Your task to perform on an android device: see creations saved in the google photos Image 0: 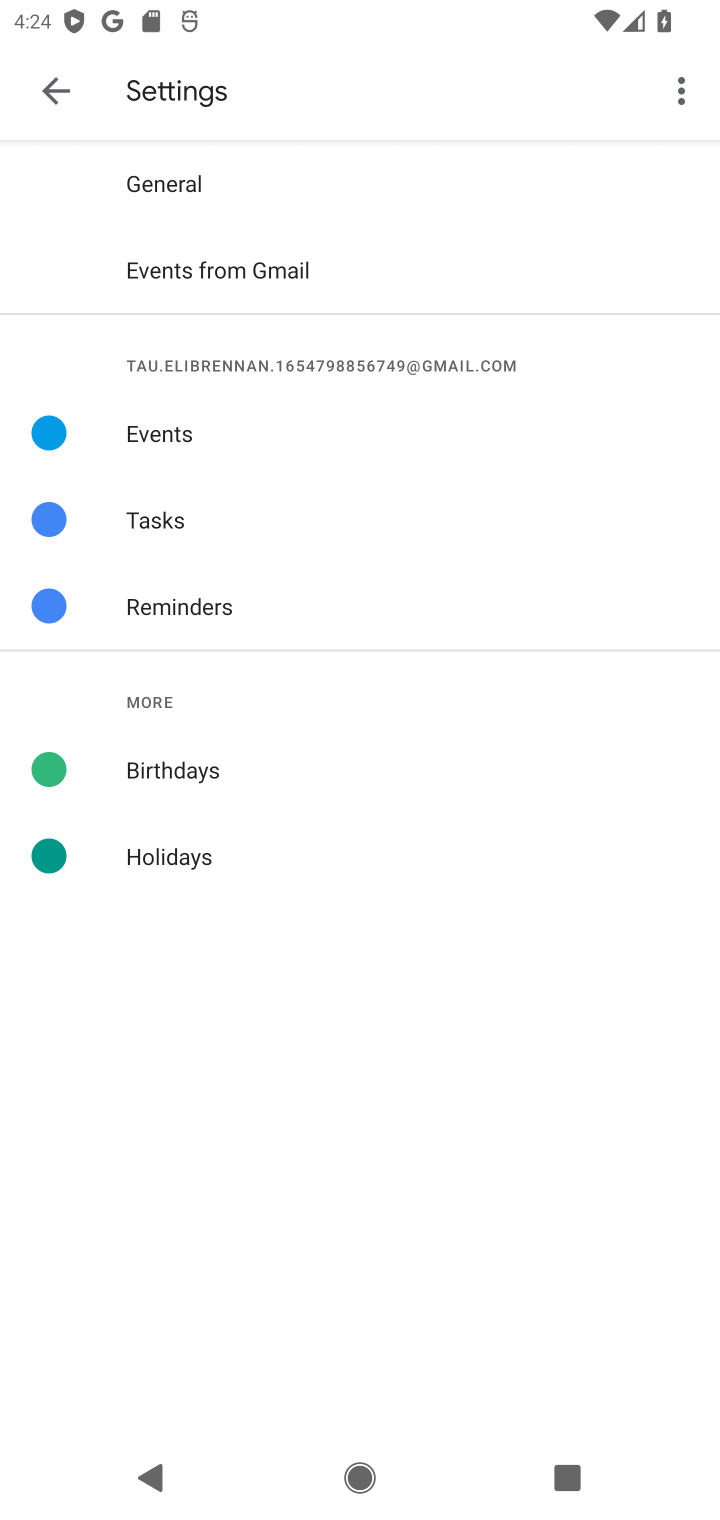
Step 0: press home button
Your task to perform on an android device: see creations saved in the google photos Image 1: 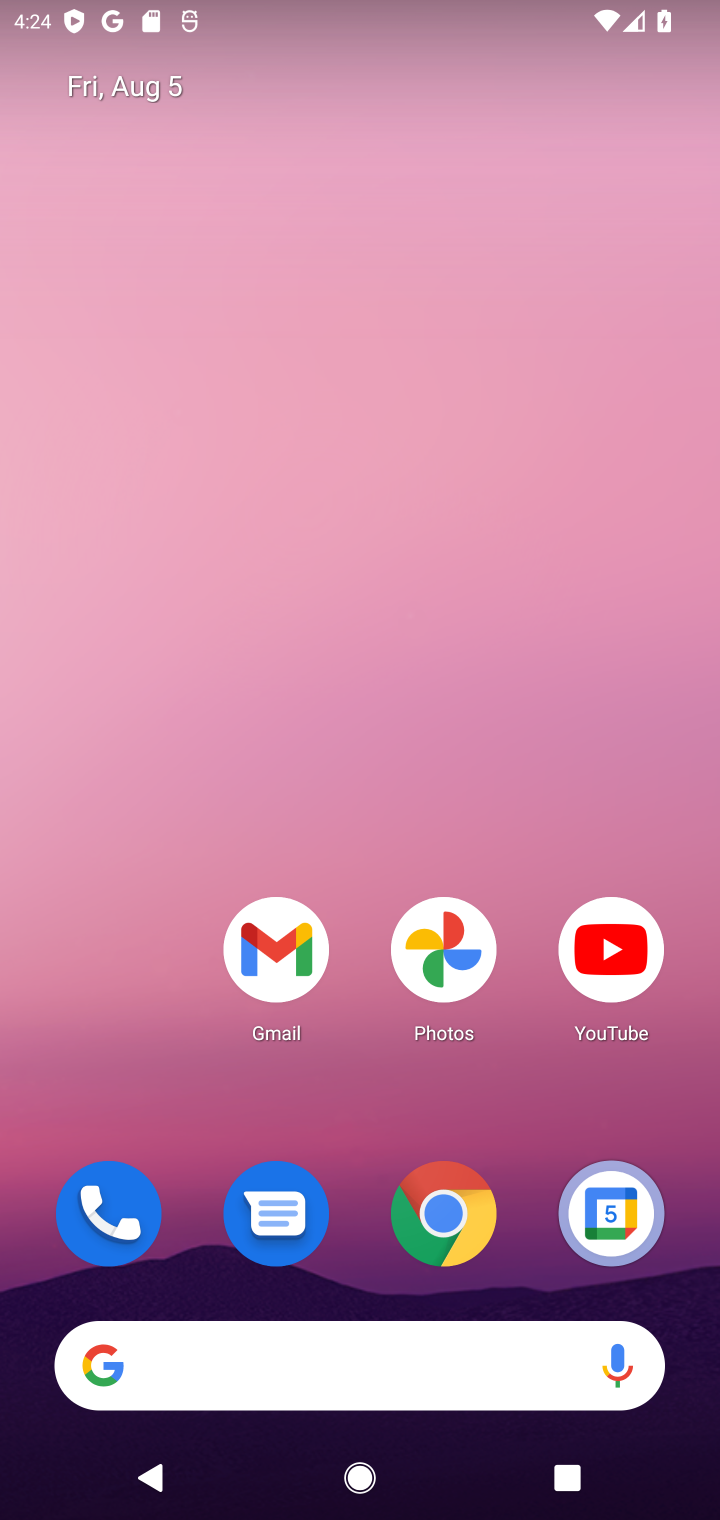
Step 1: click (454, 976)
Your task to perform on an android device: see creations saved in the google photos Image 2: 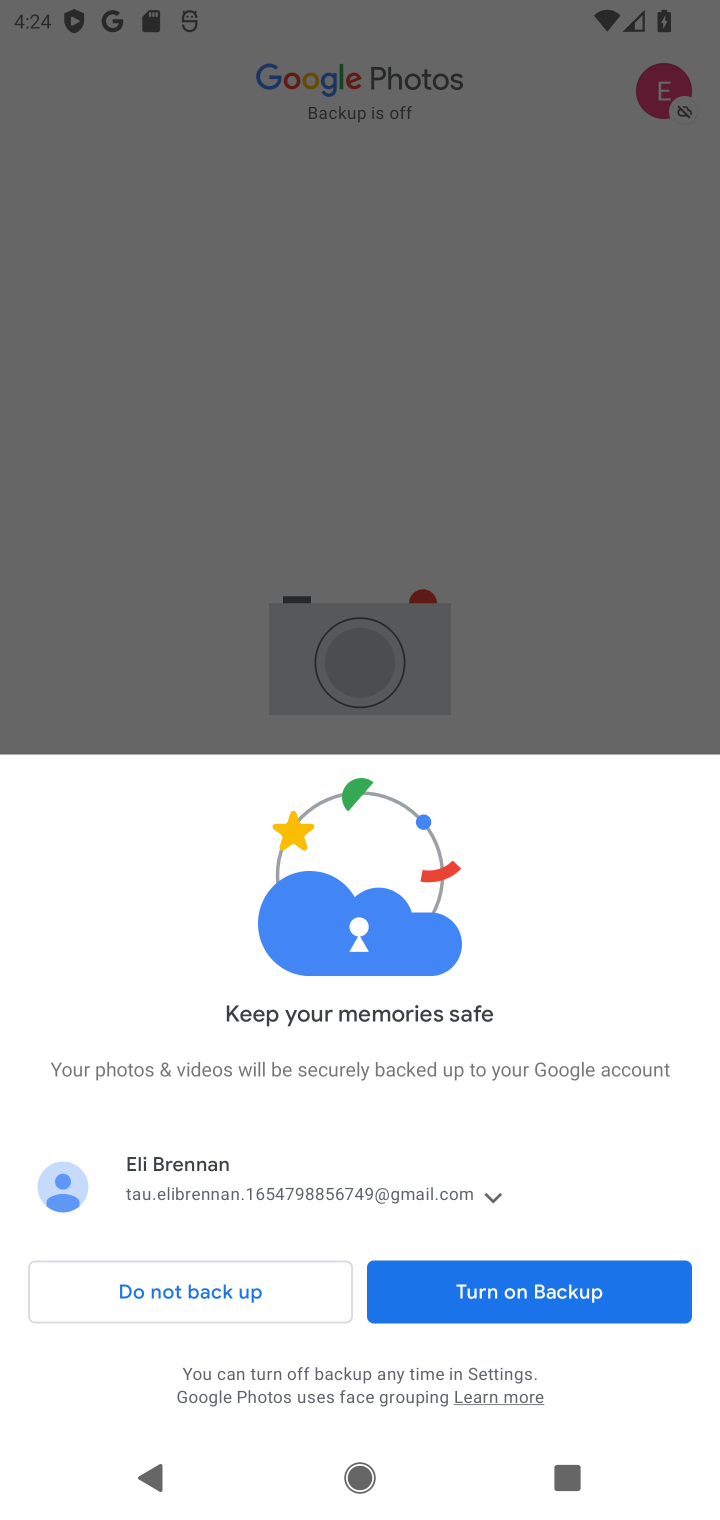
Step 2: click (490, 1279)
Your task to perform on an android device: see creations saved in the google photos Image 3: 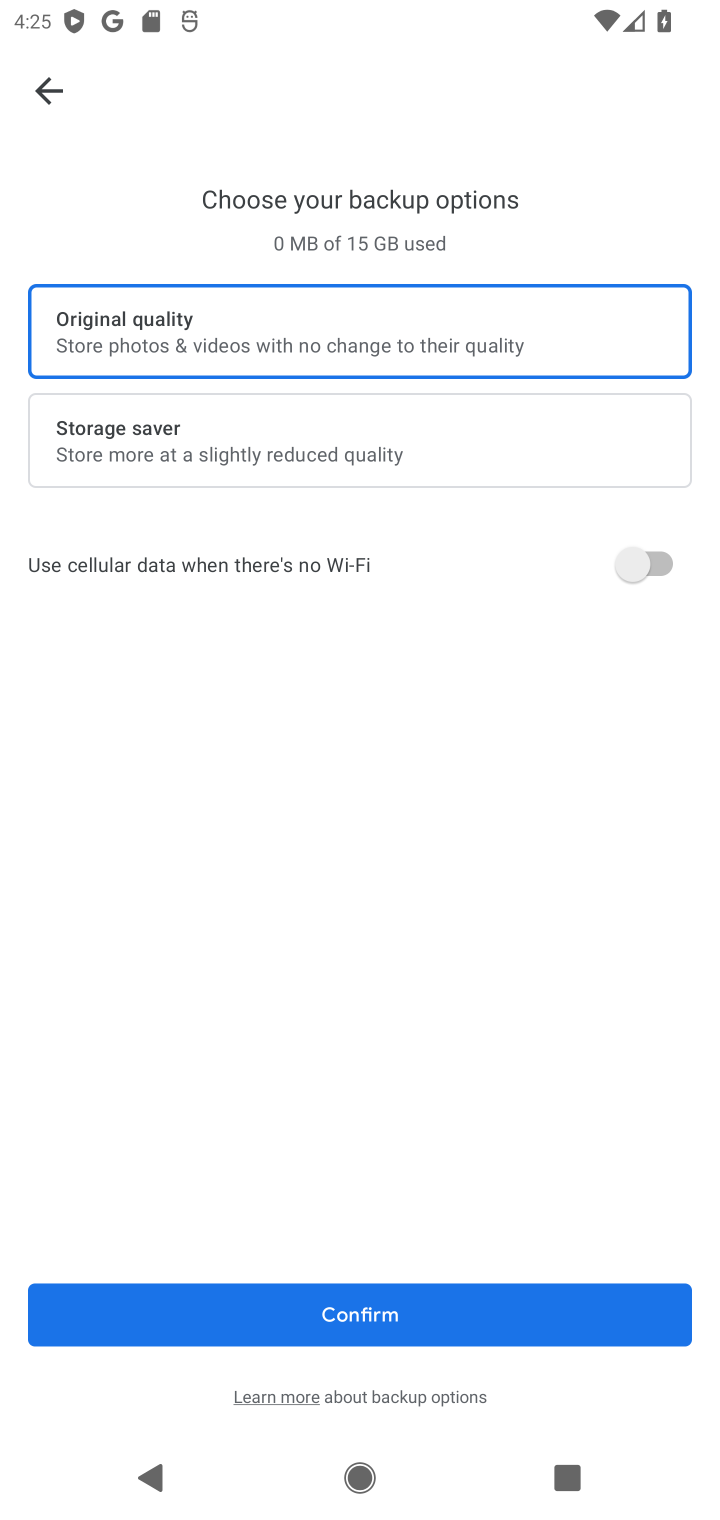
Step 3: click (468, 1316)
Your task to perform on an android device: see creations saved in the google photos Image 4: 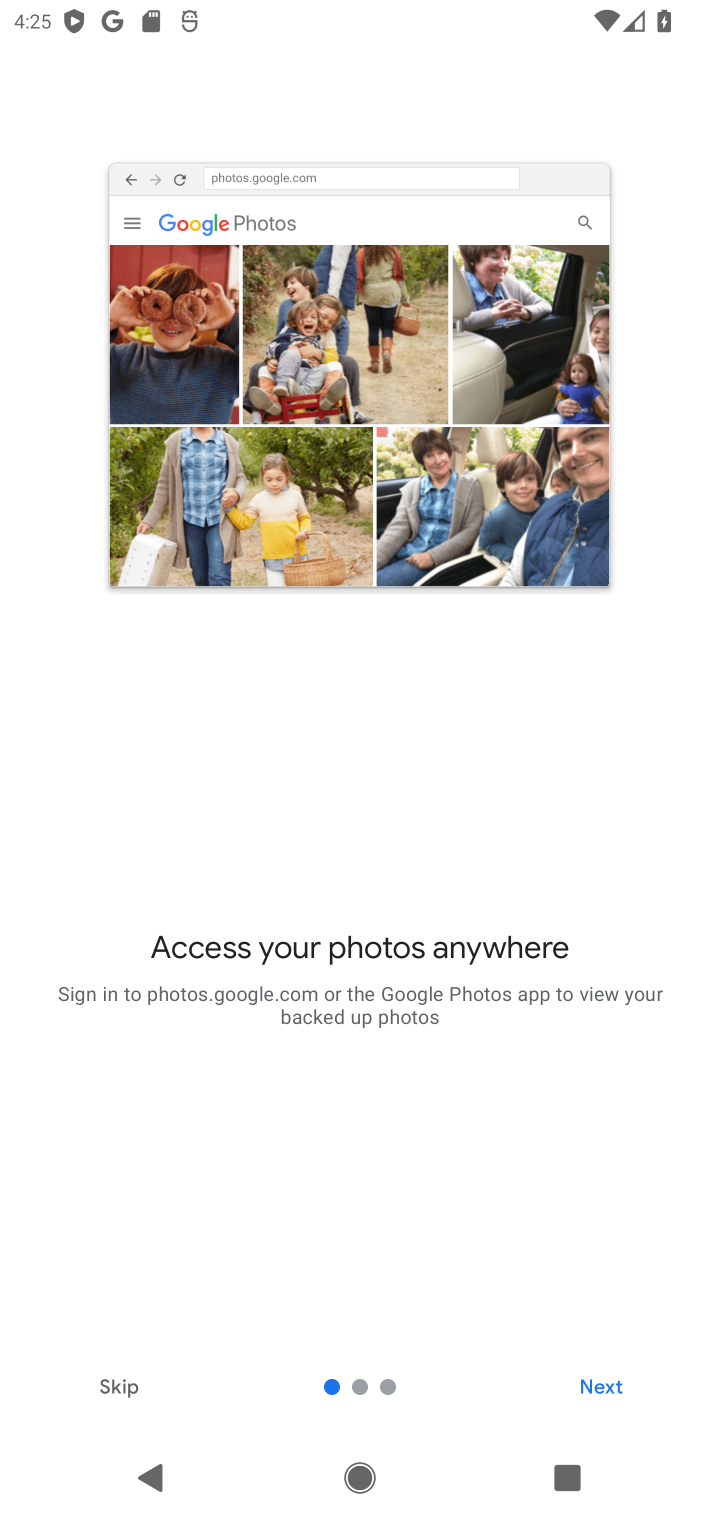
Step 4: click (107, 1377)
Your task to perform on an android device: see creations saved in the google photos Image 5: 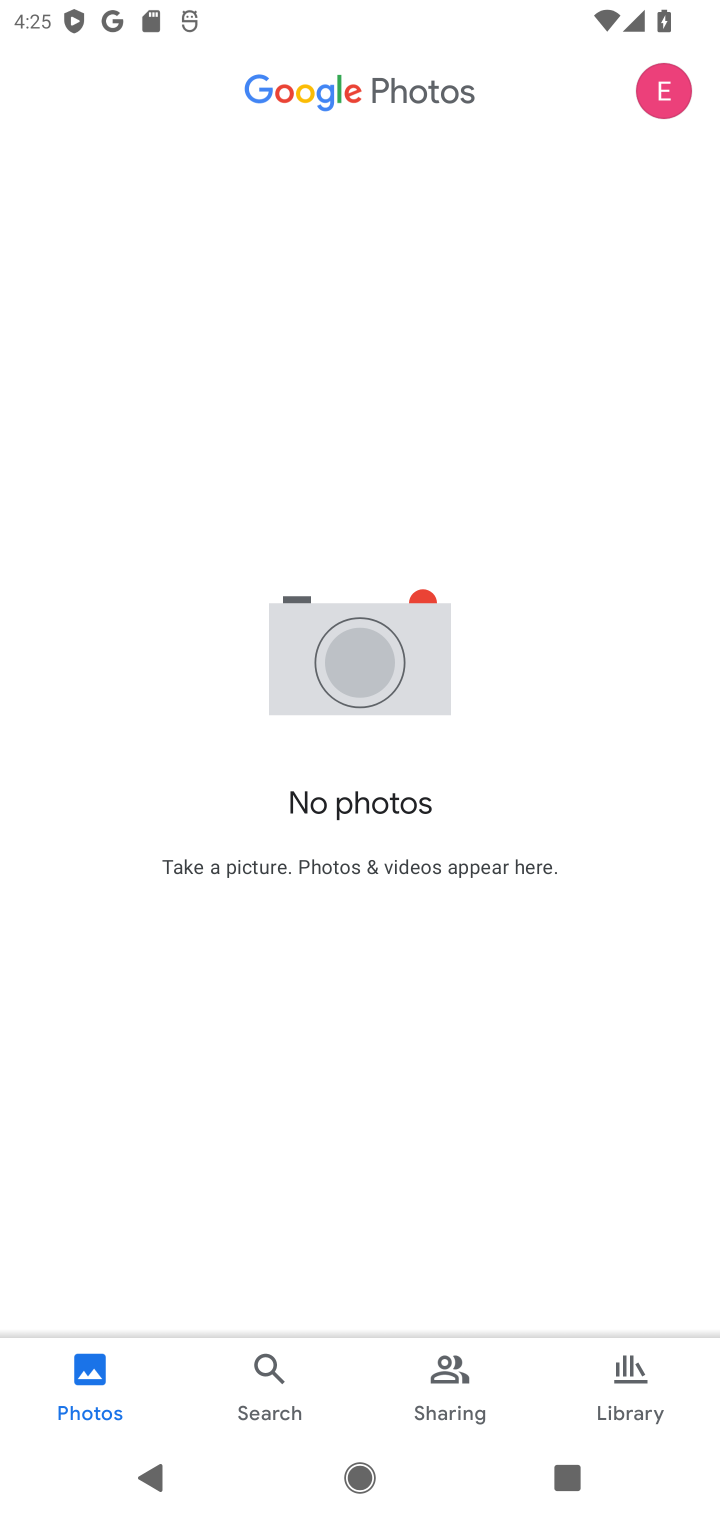
Step 5: click (287, 1340)
Your task to perform on an android device: see creations saved in the google photos Image 6: 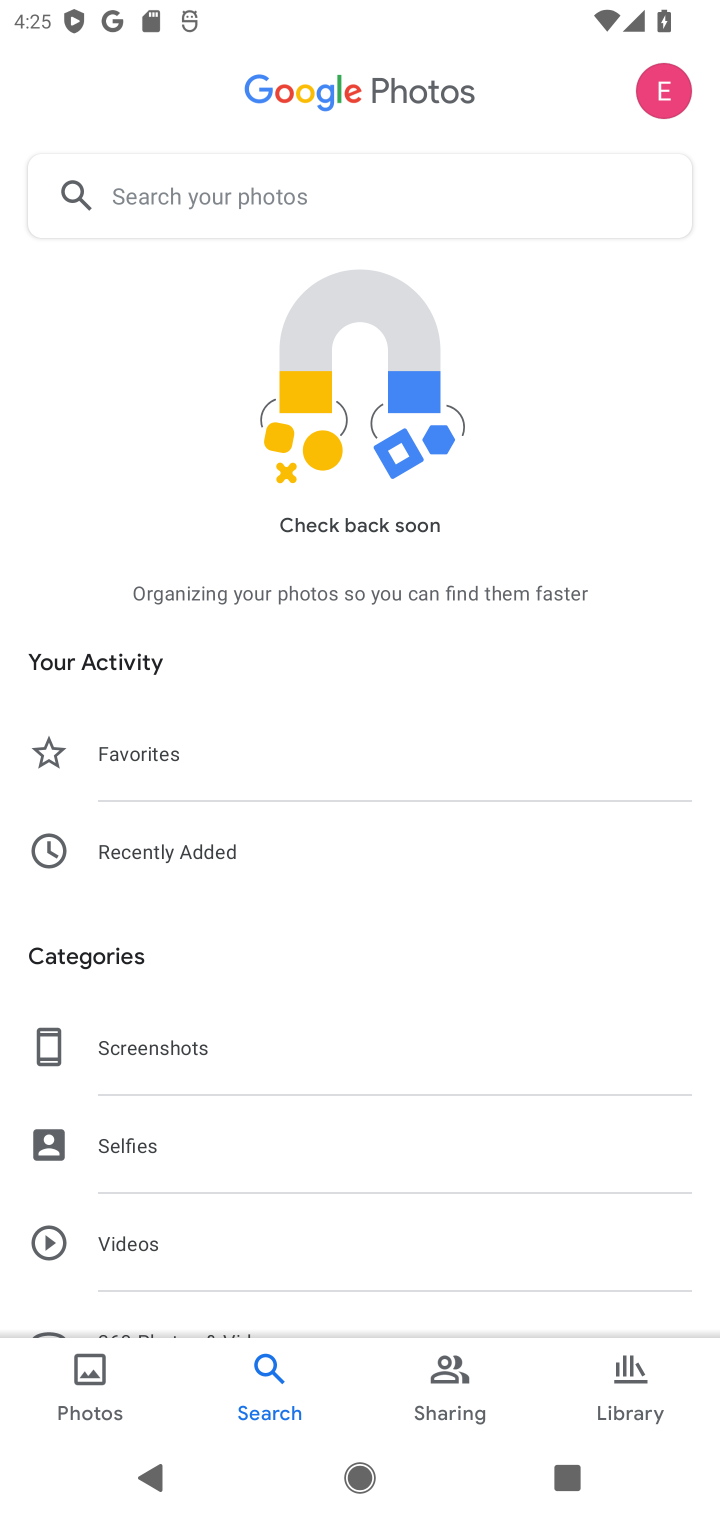
Step 6: drag from (371, 1137) to (369, 489)
Your task to perform on an android device: see creations saved in the google photos Image 7: 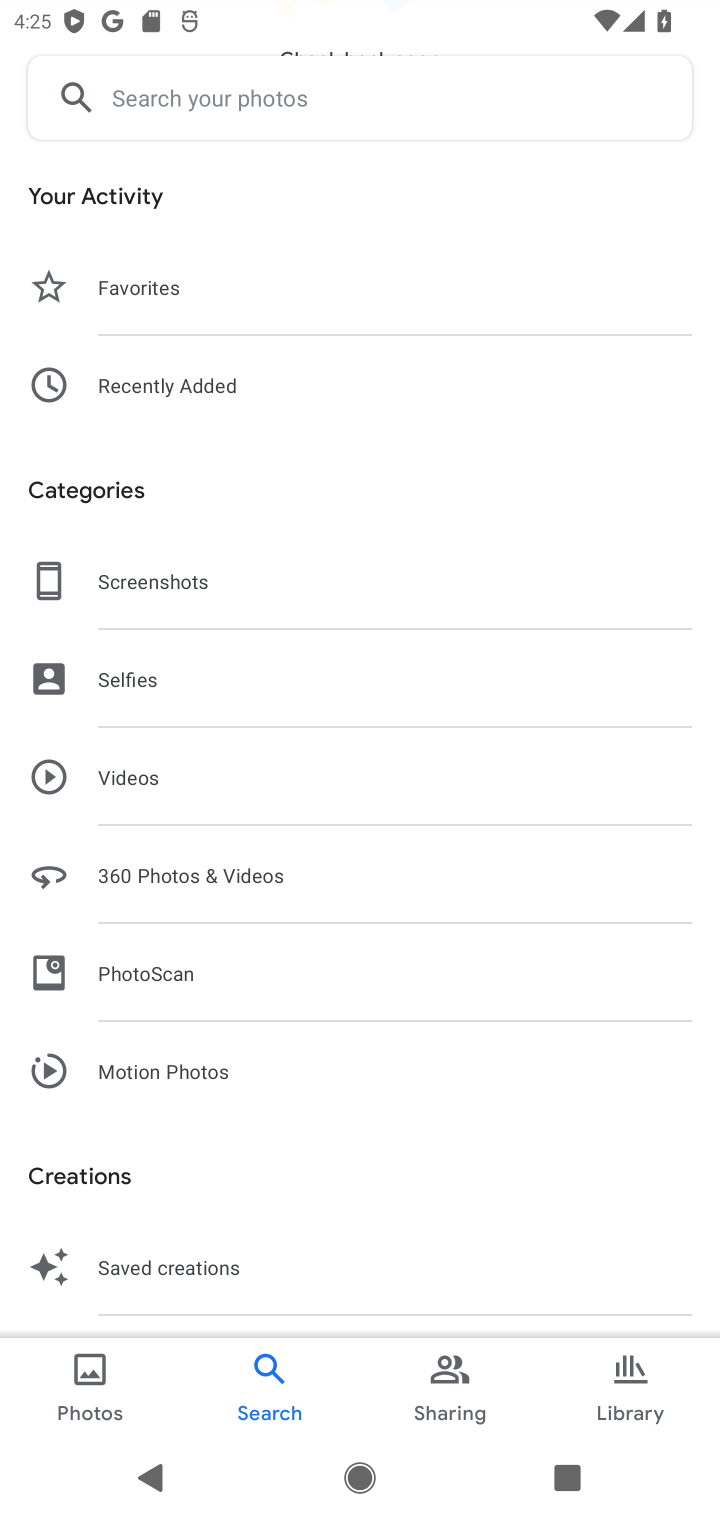
Step 7: drag from (373, 1238) to (319, 727)
Your task to perform on an android device: see creations saved in the google photos Image 8: 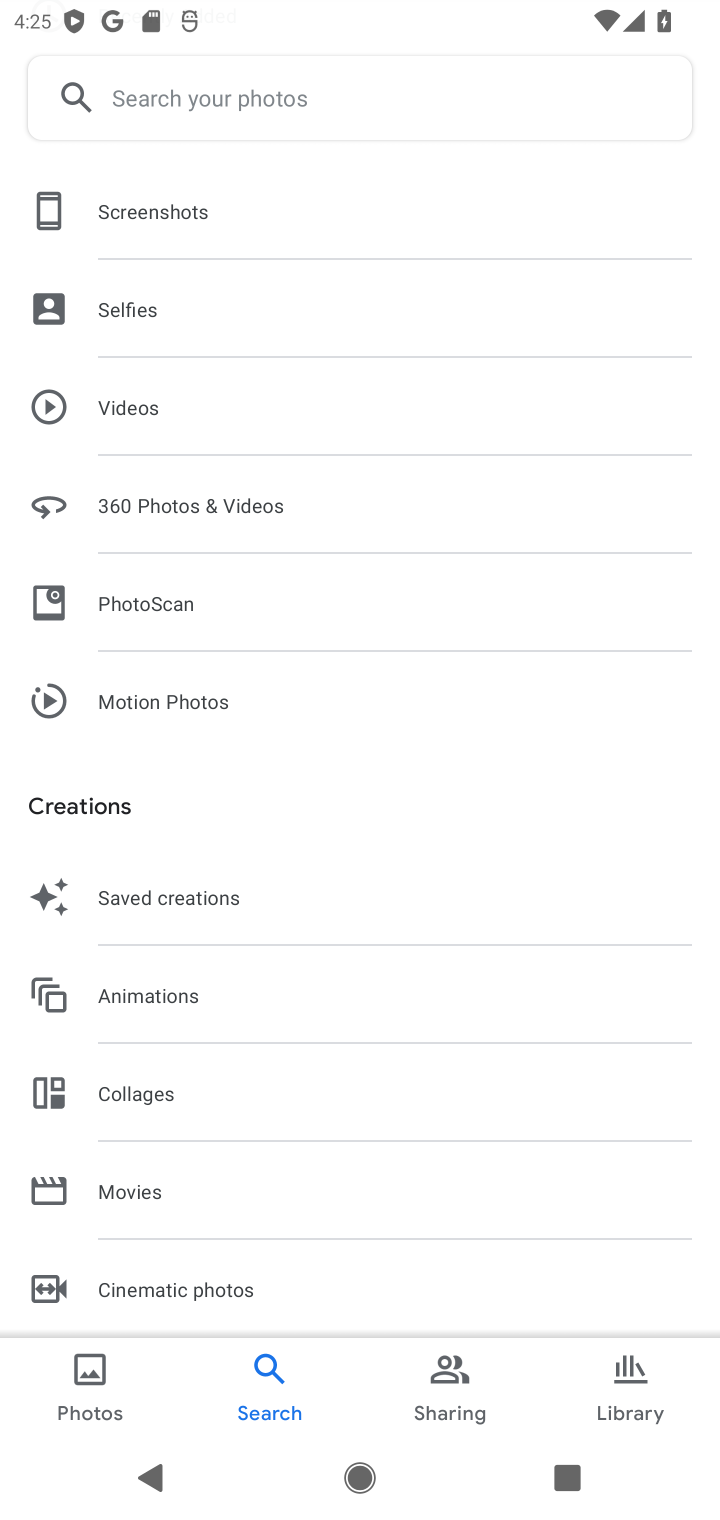
Step 8: click (182, 879)
Your task to perform on an android device: see creations saved in the google photos Image 9: 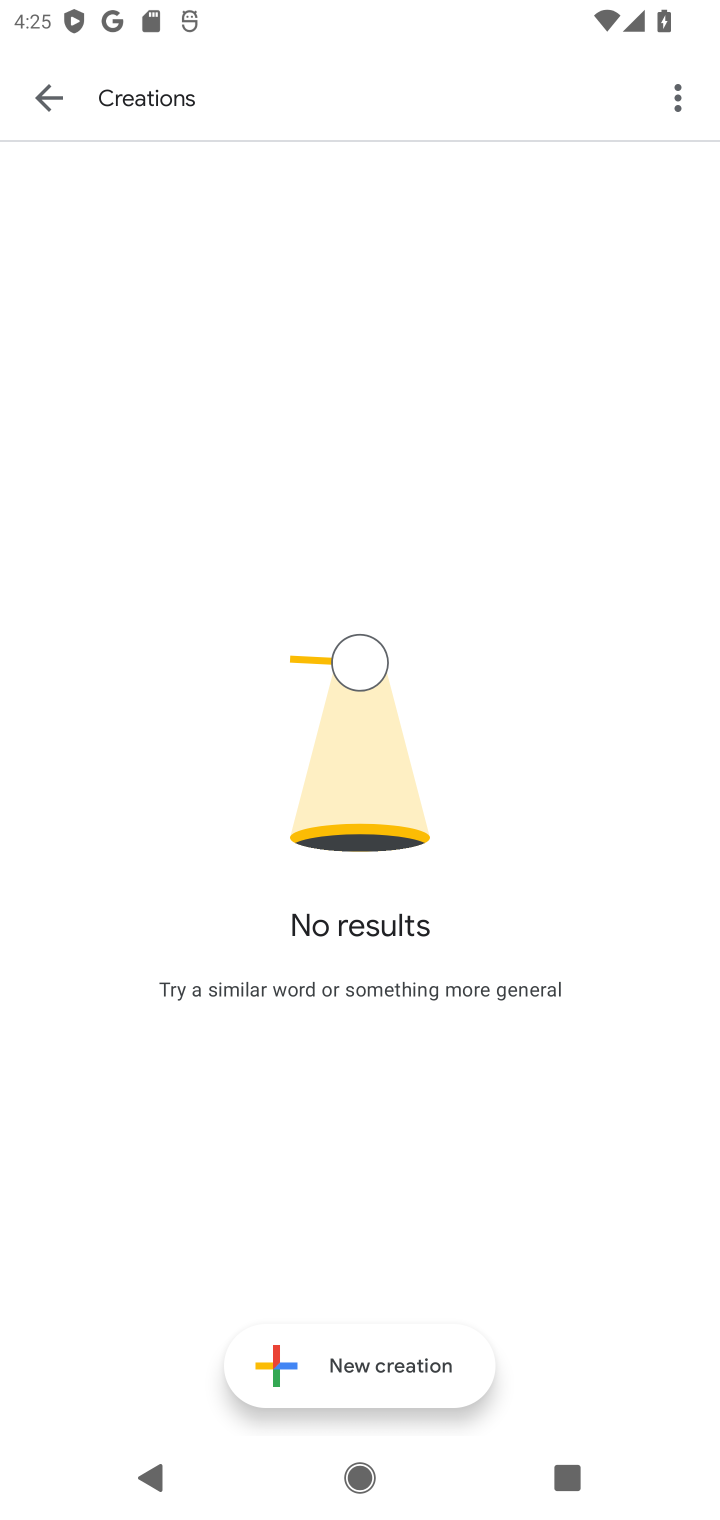
Step 9: task complete